Your task to perform on an android device: open app "Indeed Job Search" (install if not already installed) Image 0: 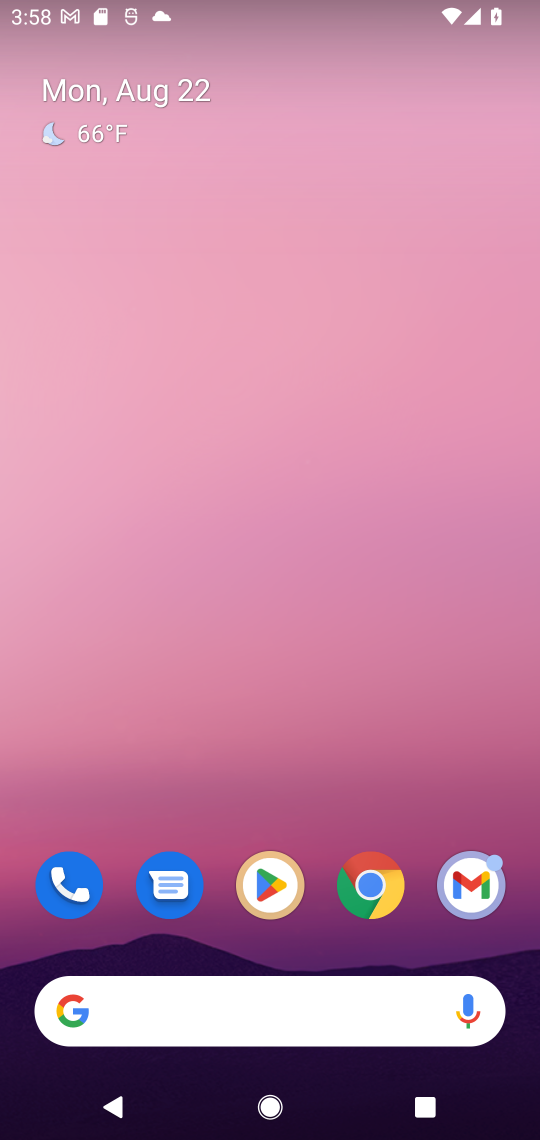
Step 0: press home button
Your task to perform on an android device: open app "Indeed Job Search" (install if not already installed) Image 1: 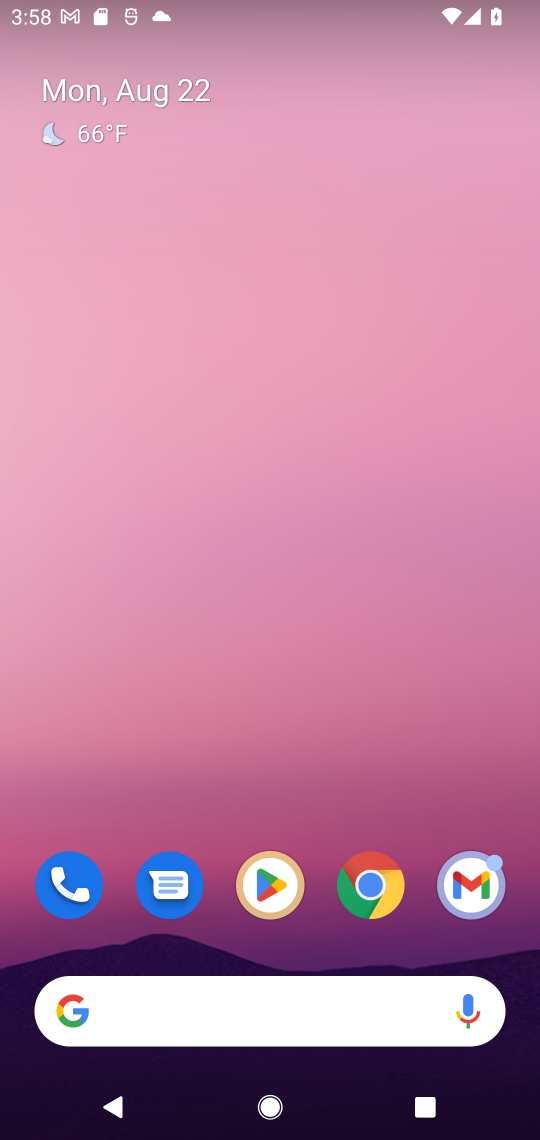
Step 1: click (263, 879)
Your task to perform on an android device: open app "Indeed Job Search" (install if not already installed) Image 2: 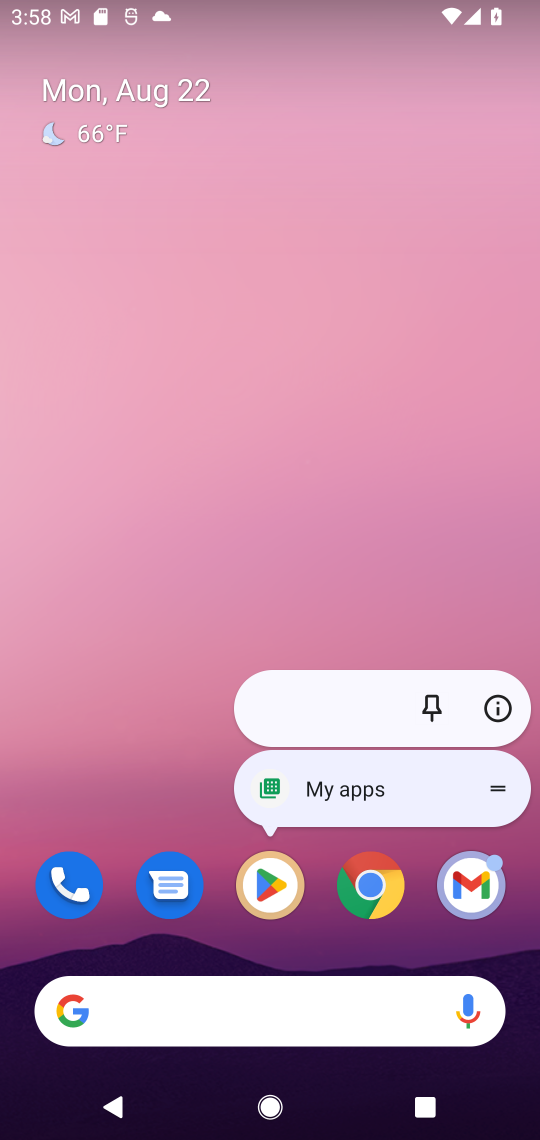
Step 2: click (263, 879)
Your task to perform on an android device: open app "Indeed Job Search" (install if not already installed) Image 3: 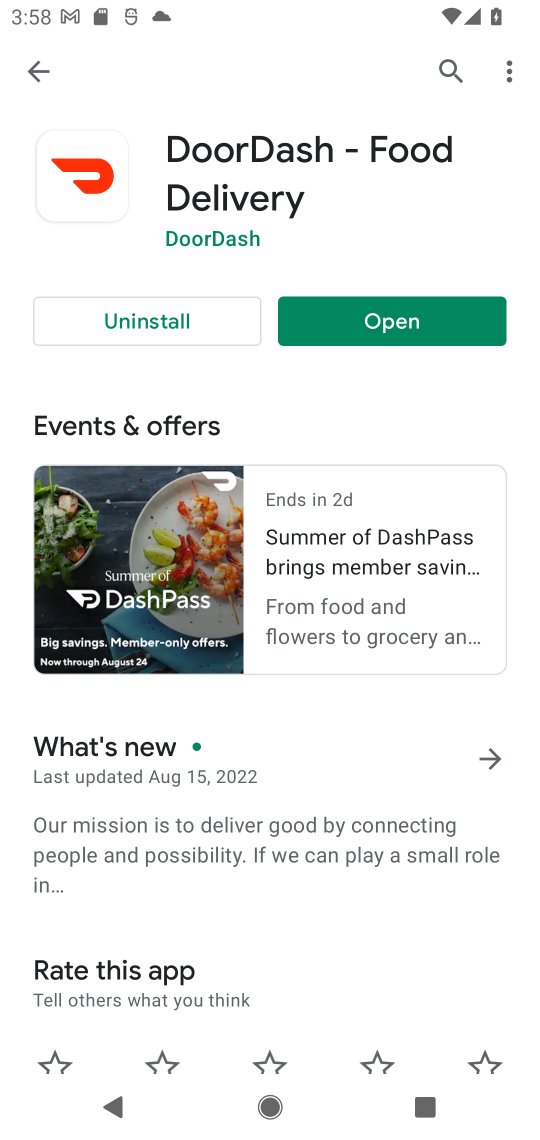
Step 3: click (464, 50)
Your task to perform on an android device: open app "Indeed Job Search" (install if not already installed) Image 4: 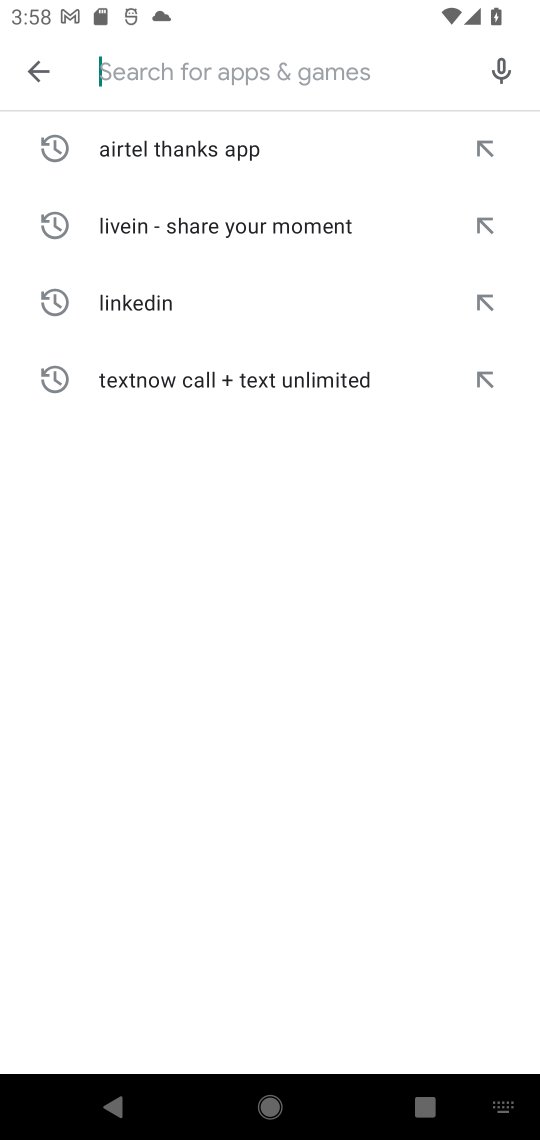
Step 4: type "Indeed Job Search"
Your task to perform on an android device: open app "Indeed Job Search" (install if not already installed) Image 5: 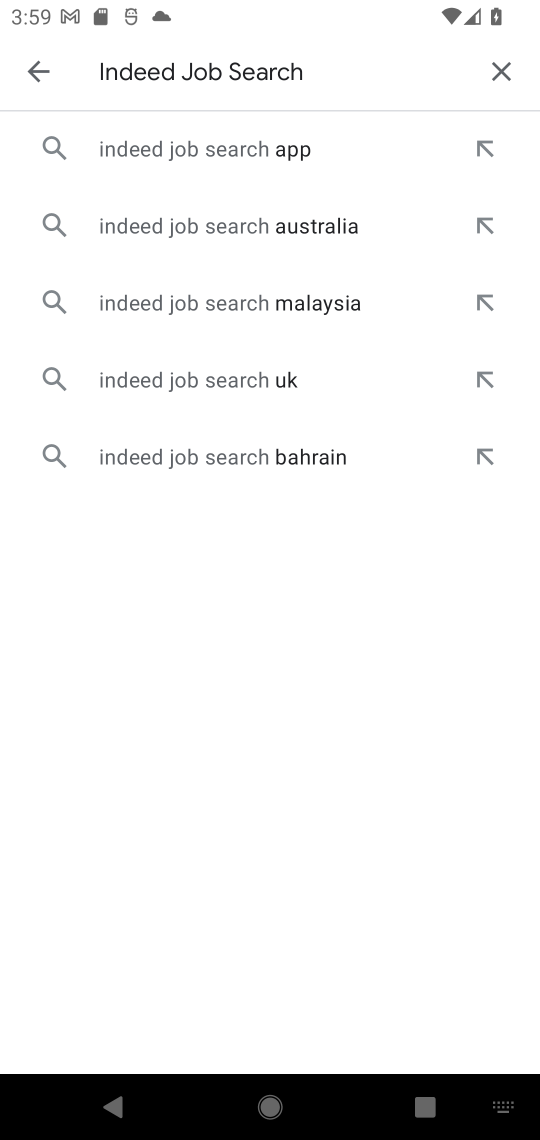
Step 5: click (314, 147)
Your task to perform on an android device: open app "Indeed Job Search" (install if not already installed) Image 6: 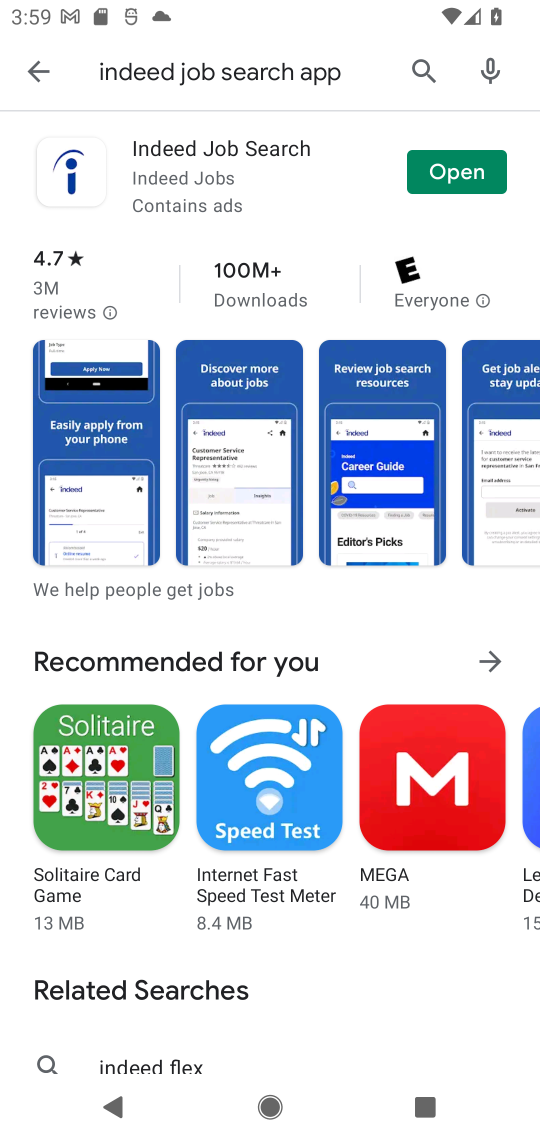
Step 6: click (474, 165)
Your task to perform on an android device: open app "Indeed Job Search" (install if not already installed) Image 7: 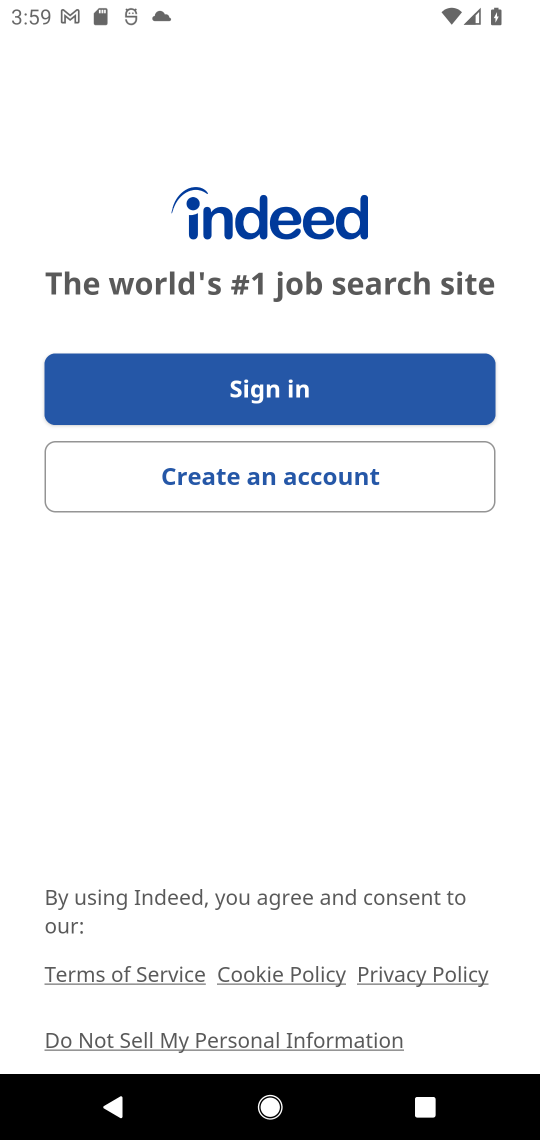
Step 7: task complete